Your task to perform on an android device: Check the news Image 0: 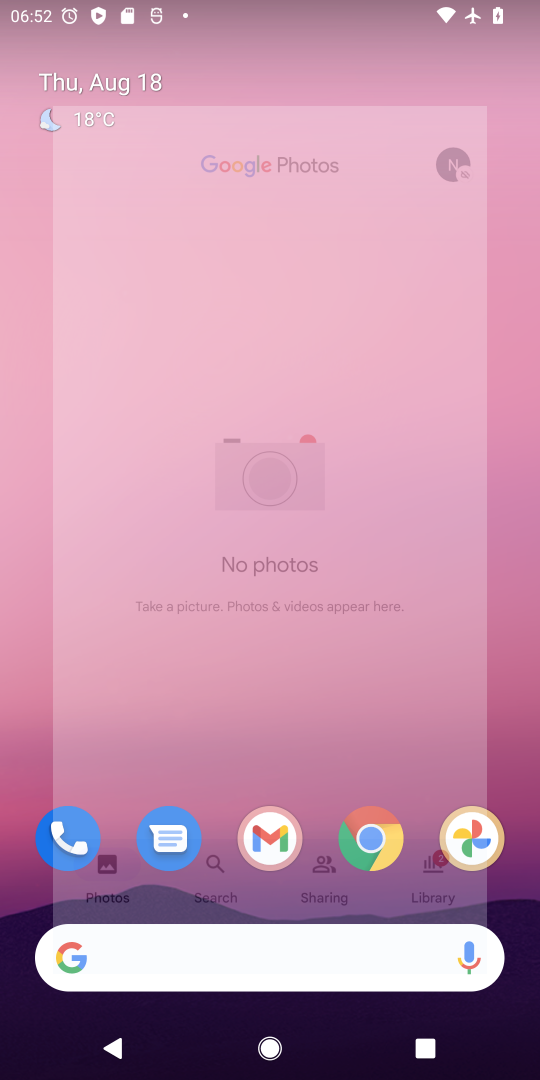
Step 0: press home button
Your task to perform on an android device: Check the news Image 1: 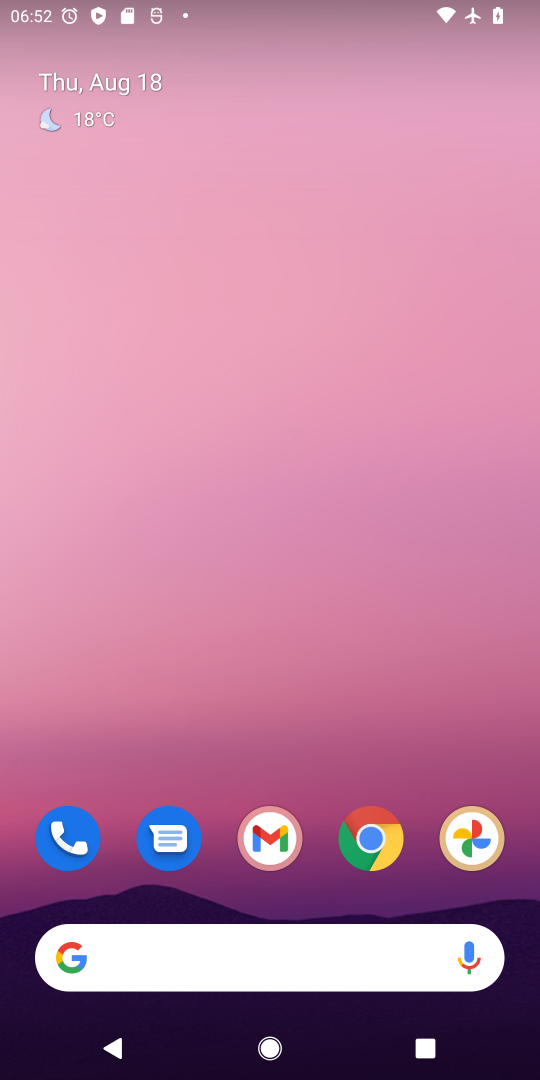
Step 1: click (55, 963)
Your task to perform on an android device: Check the news Image 2: 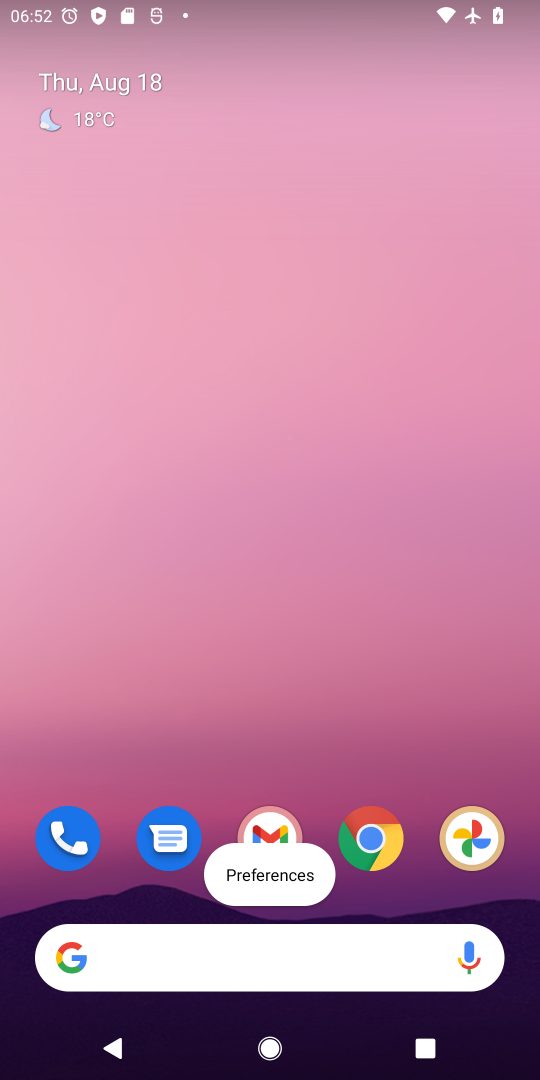
Step 2: click (72, 964)
Your task to perform on an android device: Check the news Image 3: 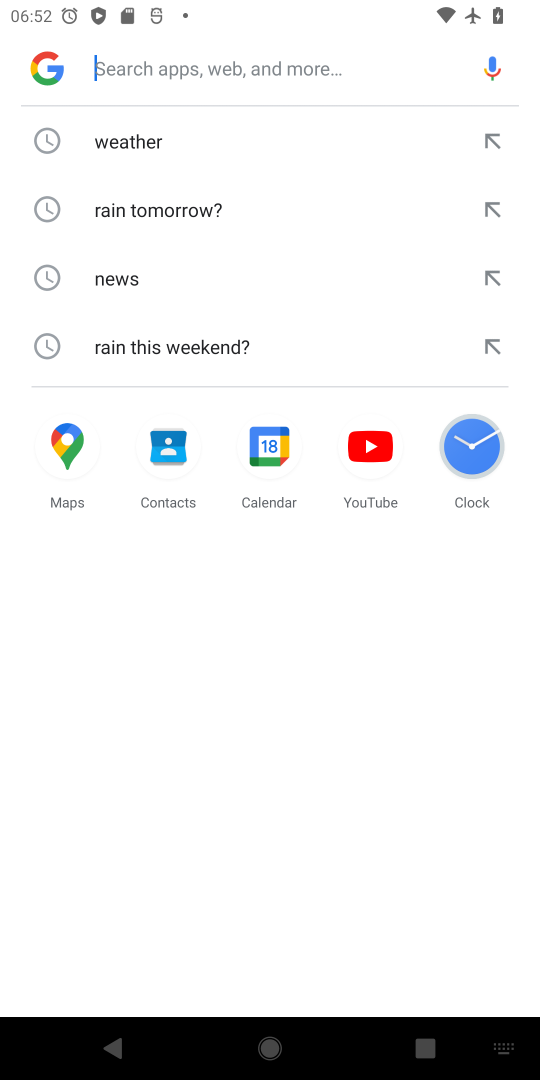
Step 3: click (110, 280)
Your task to perform on an android device: Check the news Image 4: 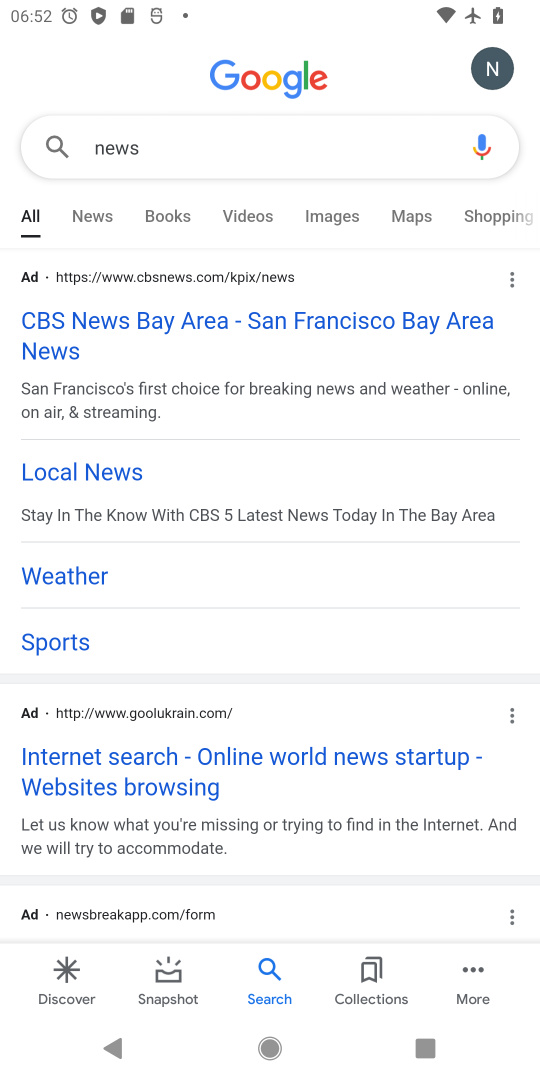
Step 4: task complete